Your task to perform on an android device: Open network settings Image 0: 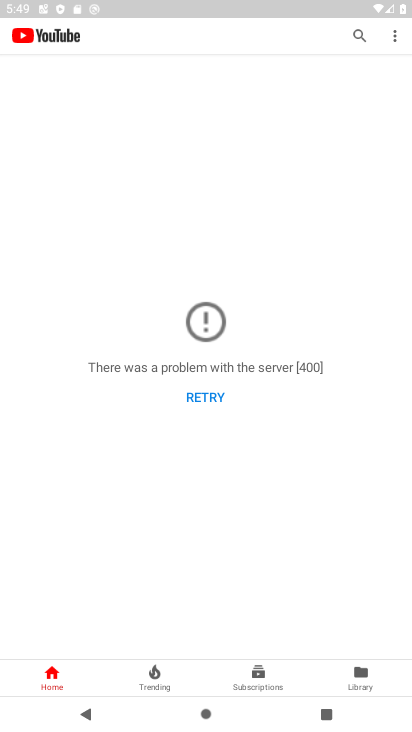
Step 0: press home button
Your task to perform on an android device: Open network settings Image 1: 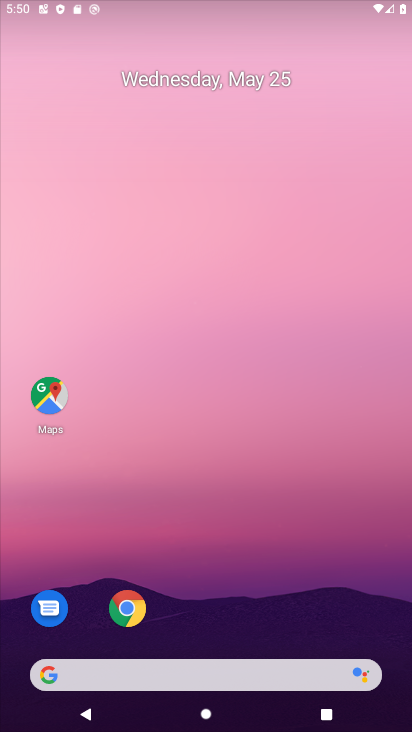
Step 1: click (115, 620)
Your task to perform on an android device: Open network settings Image 2: 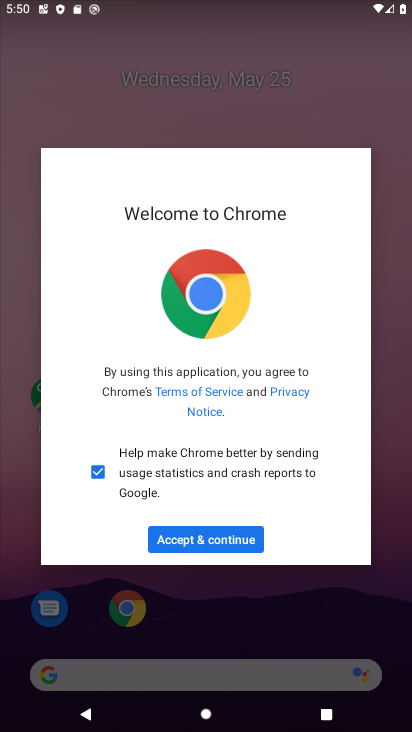
Step 2: click (207, 539)
Your task to perform on an android device: Open network settings Image 3: 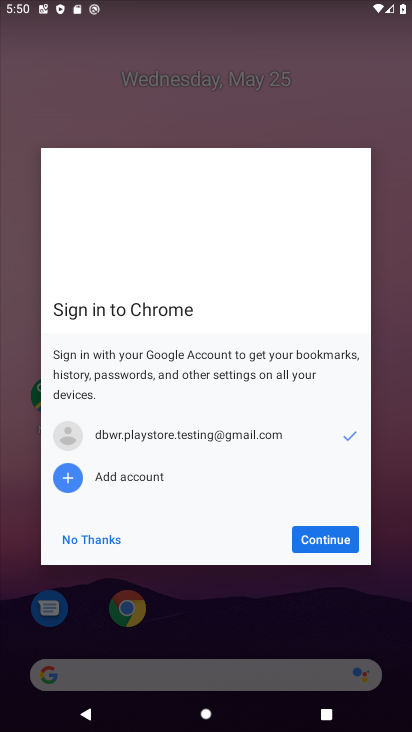
Step 3: click (327, 537)
Your task to perform on an android device: Open network settings Image 4: 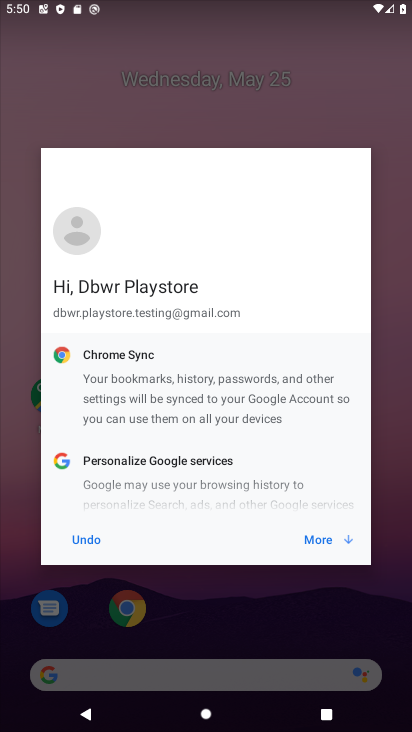
Step 4: click (327, 537)
Your task to perform on an android device: Open network settings Image 5: 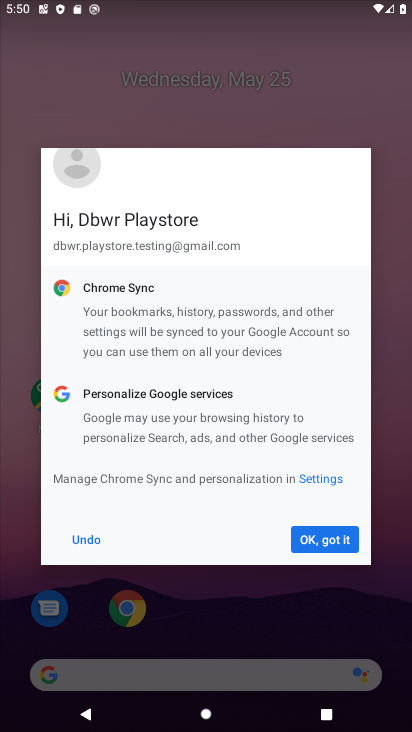
Step 5: click (327, 537)
Your task to perform on an android device: Open network settings Image 6: 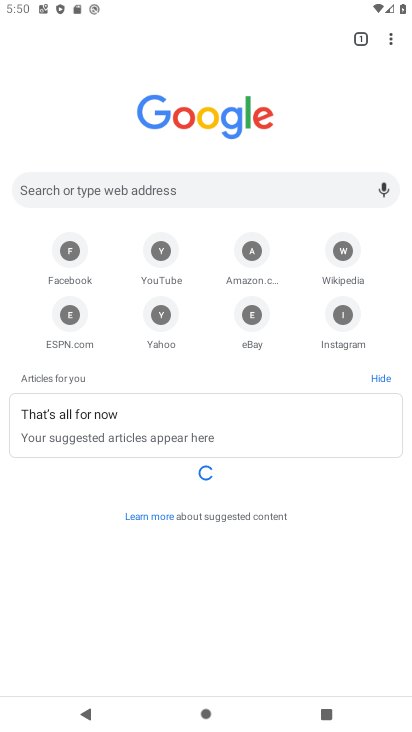
Step 6: click (250, 327)
Your task to perform on an android device: Open network settings Image 7: 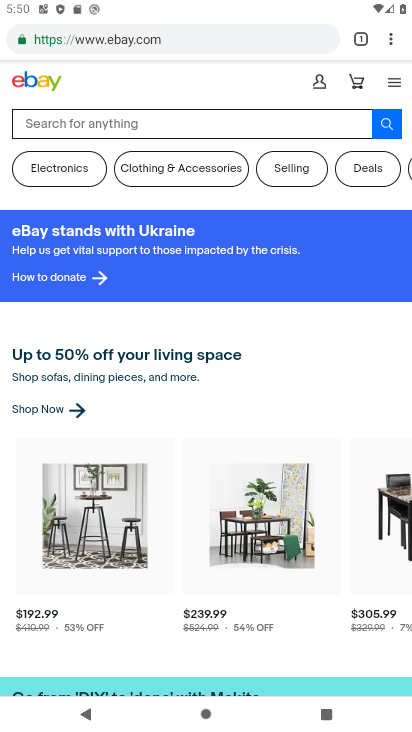
Step 7: task complete